Your task to perform on an android device: What's the weather going to be this weekend? Image 0: 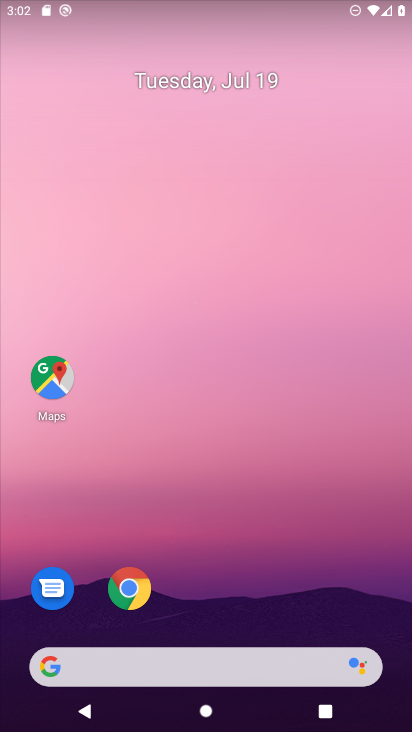
Step 0: click (127, 676)
Your task to perform on an android device: What's the weather going to be this weekend? Image 1: 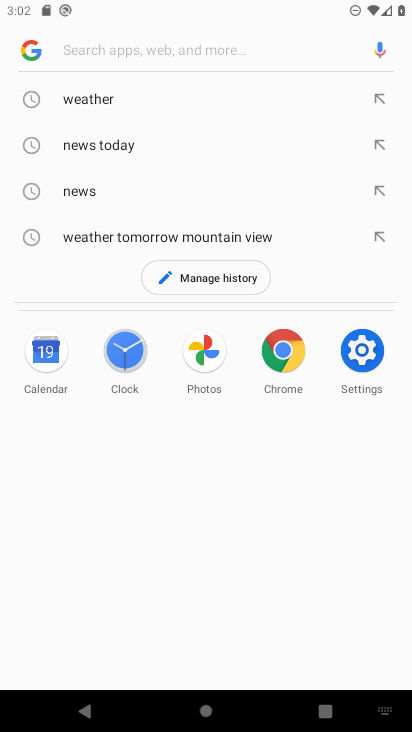
Step 1: click (96, 103)
Your task to perform on an android device: What's the weather going to be this weekend? Image 2: 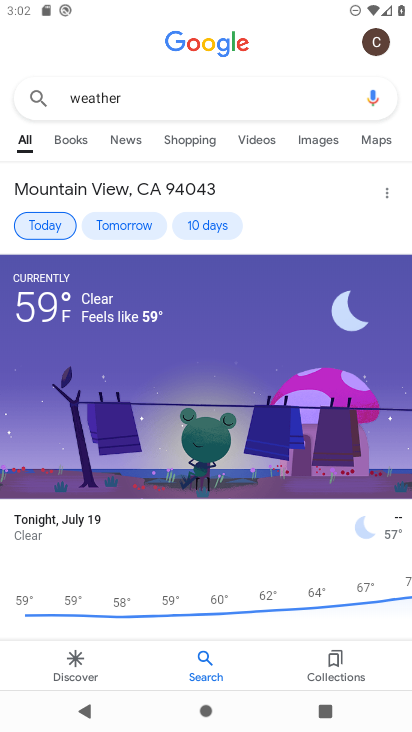
Step 2: click (197, 225)
Your task to perform on an android device: What's the weather going to be this weekend? Image 3: 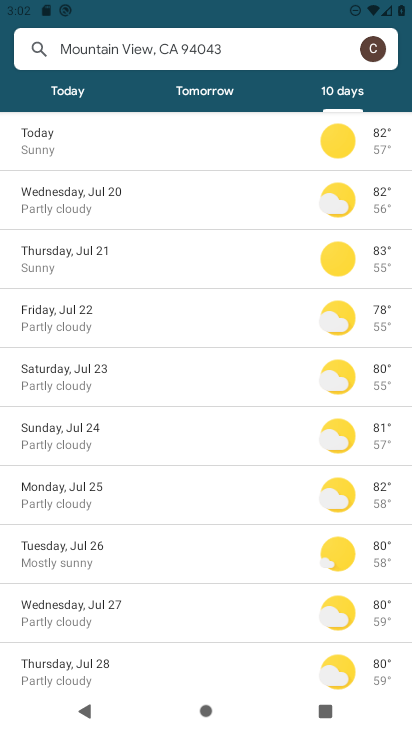
Step 3: task complete